Your task to perform on an android device: What's the weather like in Mumbai? Image 0: 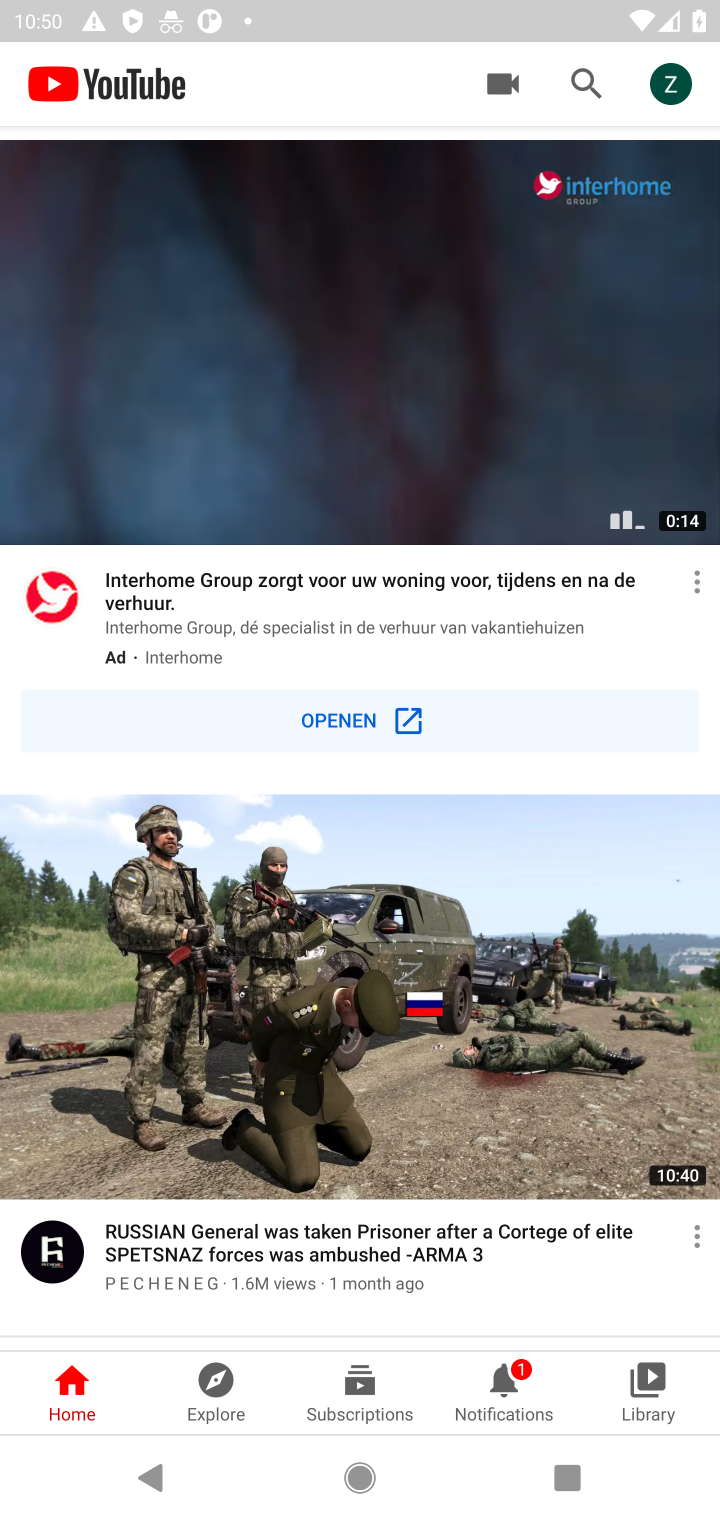
Step 0: press home button
Your task to perform on an android device: What's the weather like in Mumbai? Image 1: 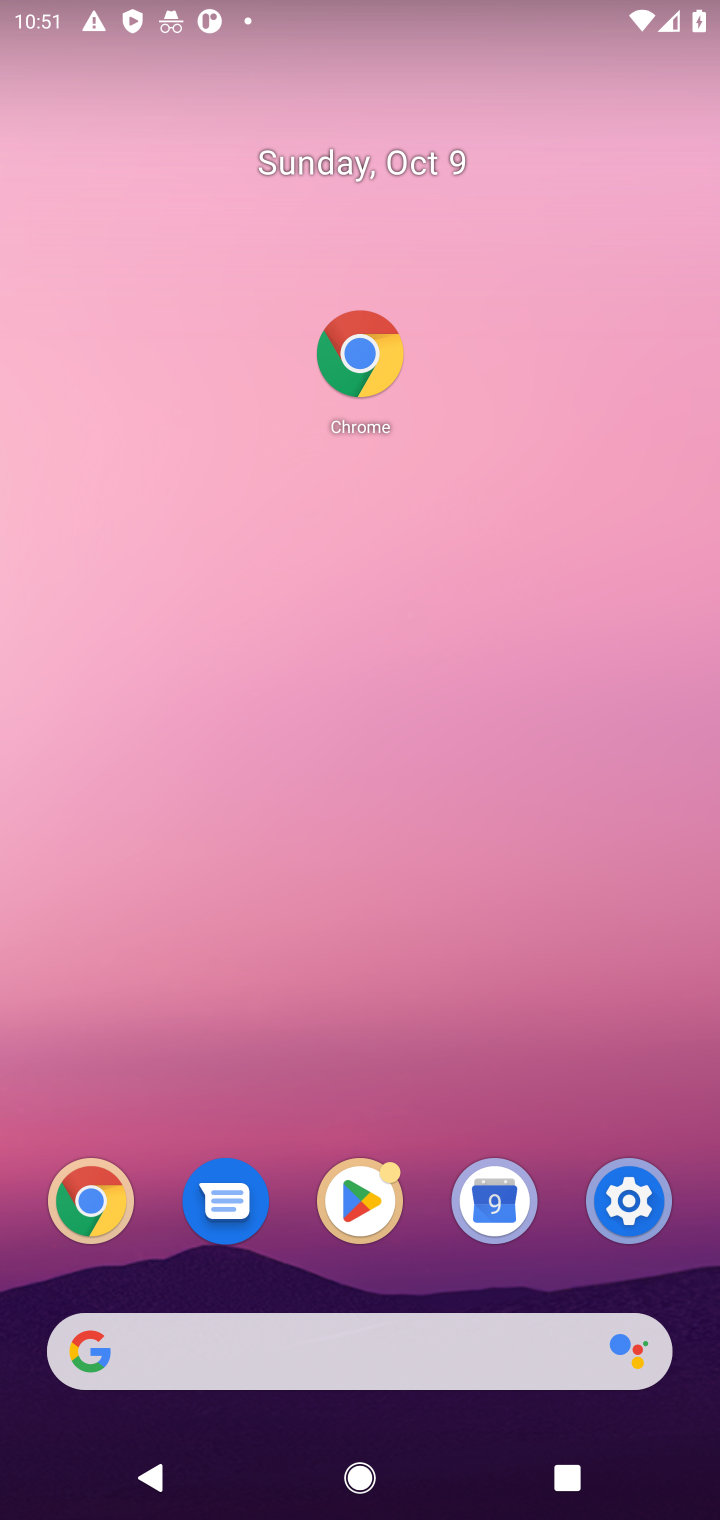
Step 1: click (90, 1205)
Your task to perform on an android device: What's the weather like in Mumbai? Image 2: 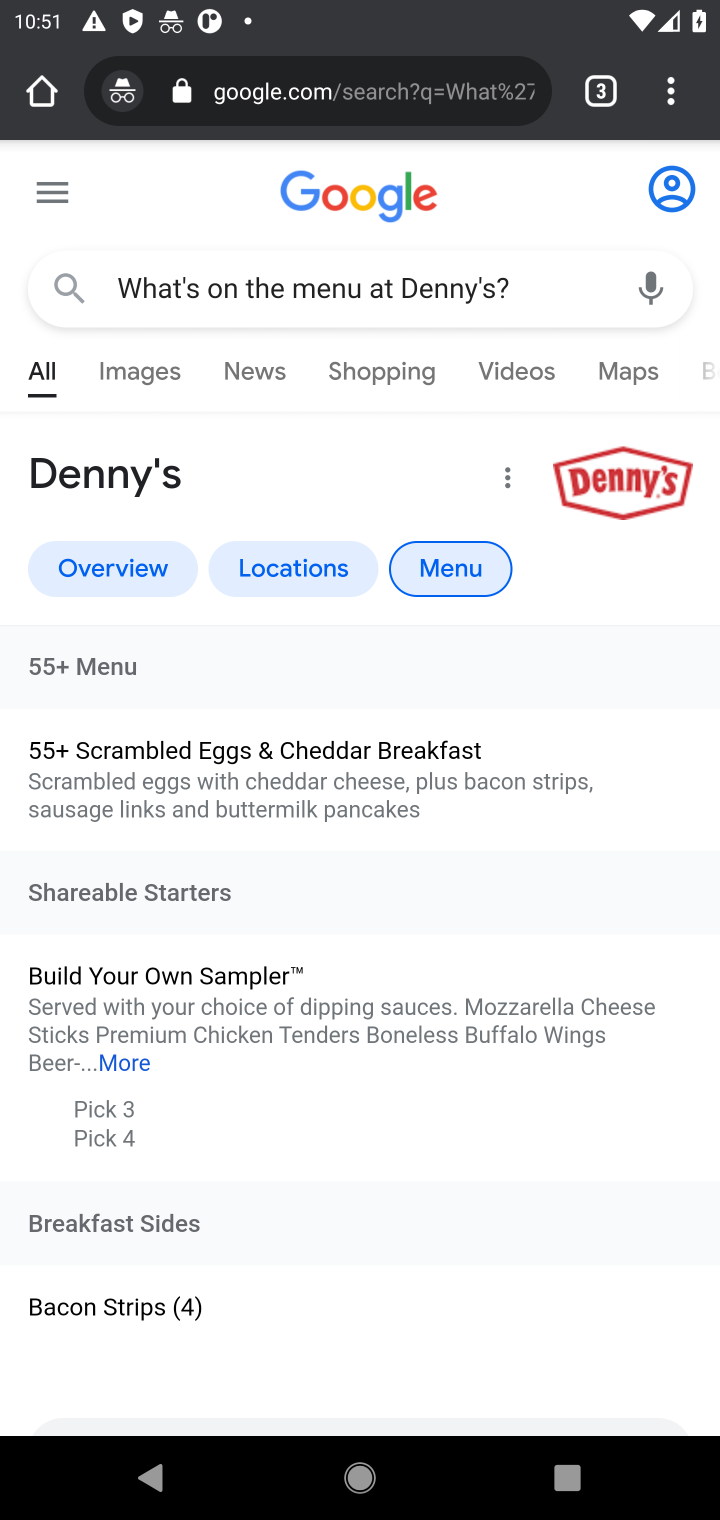
Step 2: click (382, 288)
Your task to perform on an android device: What's the weather like in Mumbai? Image 3: 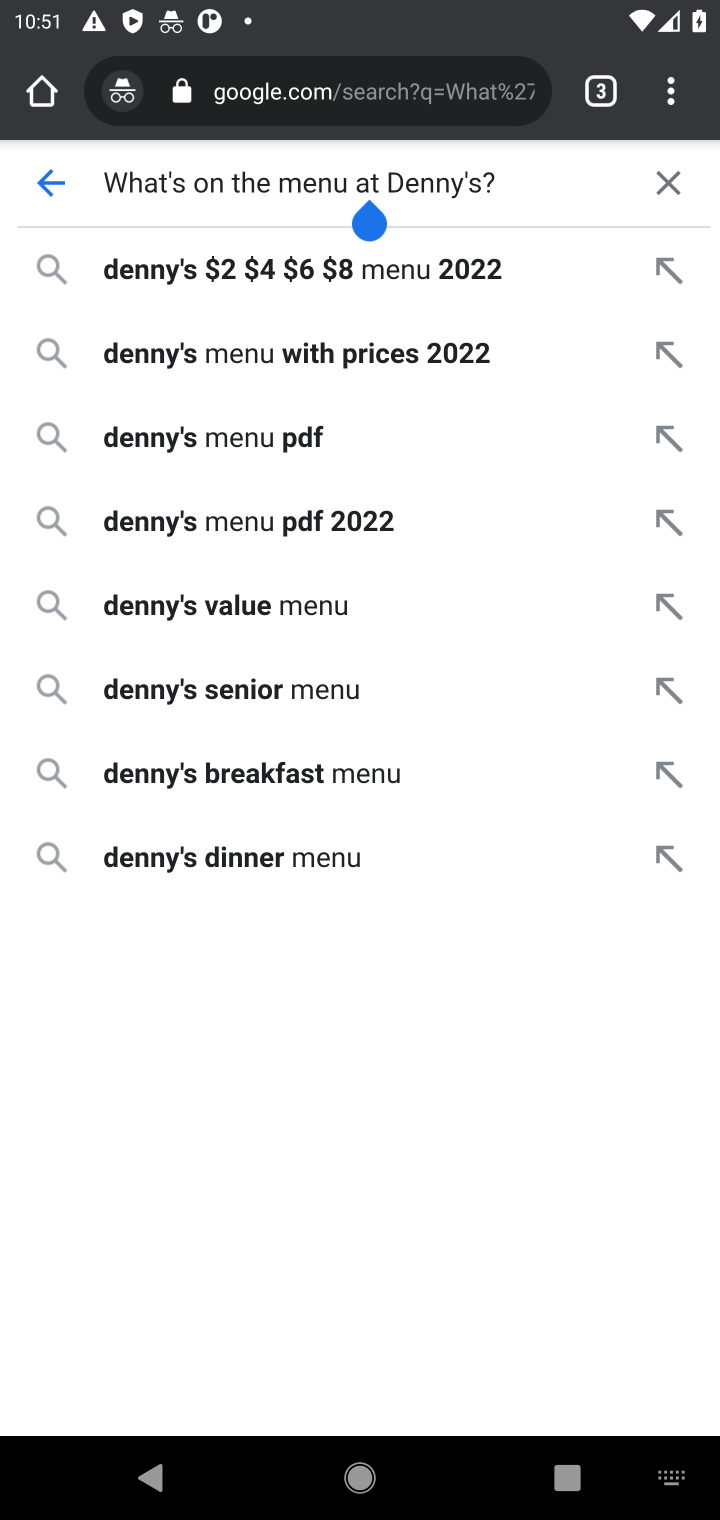
Step 3: click (341, 92)
Your task to perform on an android device: What's the weather like in Mumbai? Image 4: 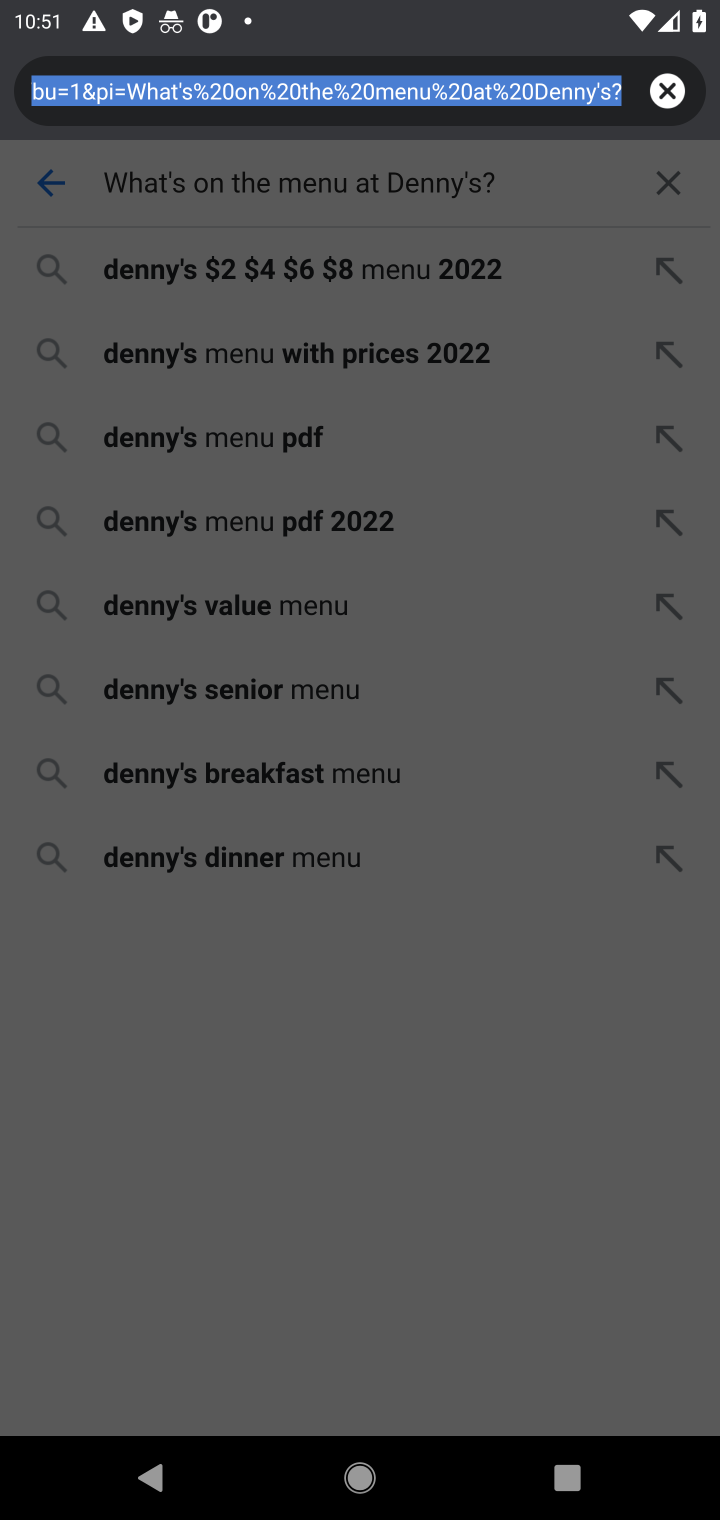
Step 4: type "What's the weather like in Mumbai?"
Your task to perform on an android device: What's the weather like in Mumbai? Image 5: 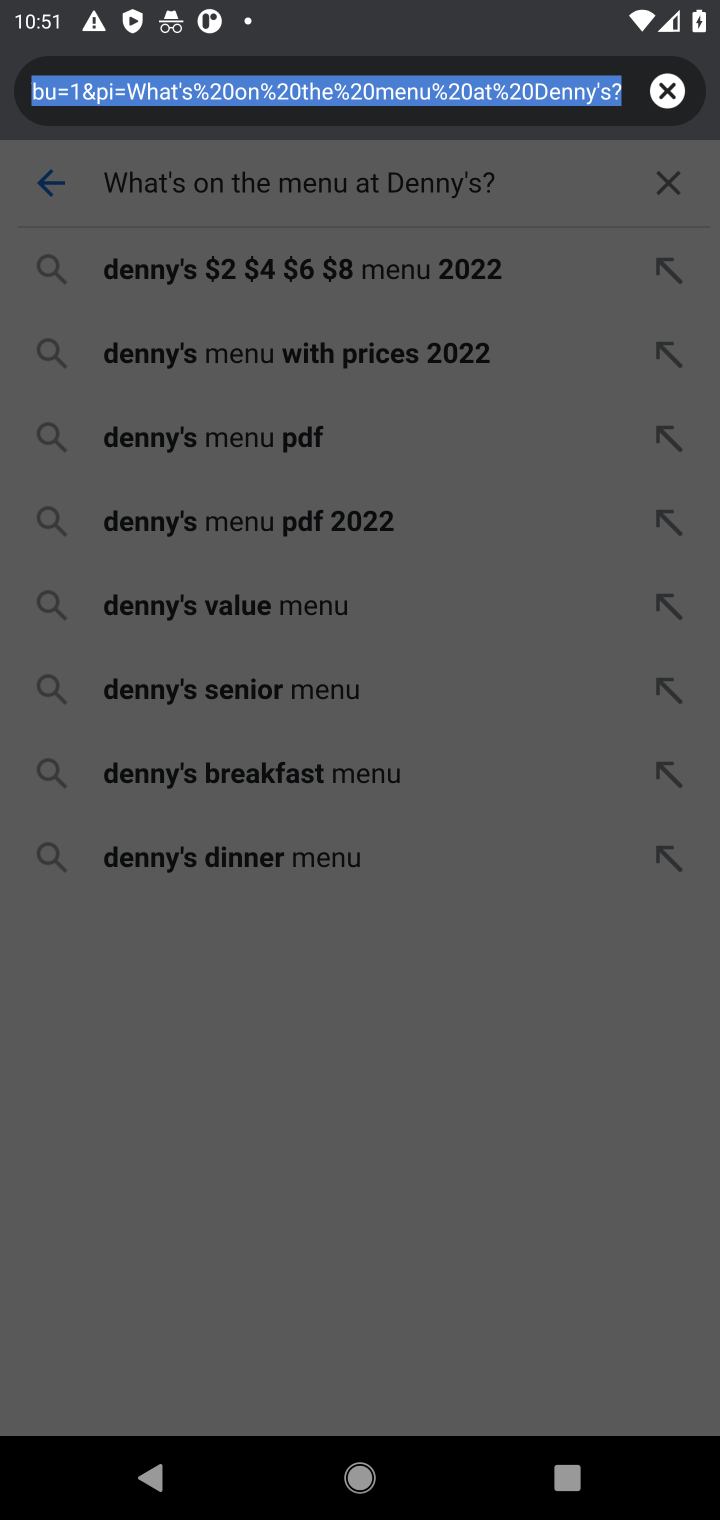
Step 5: click (508, 106)
Your task to perform on an android device: What's the weather like in Mumbai? Image 6: 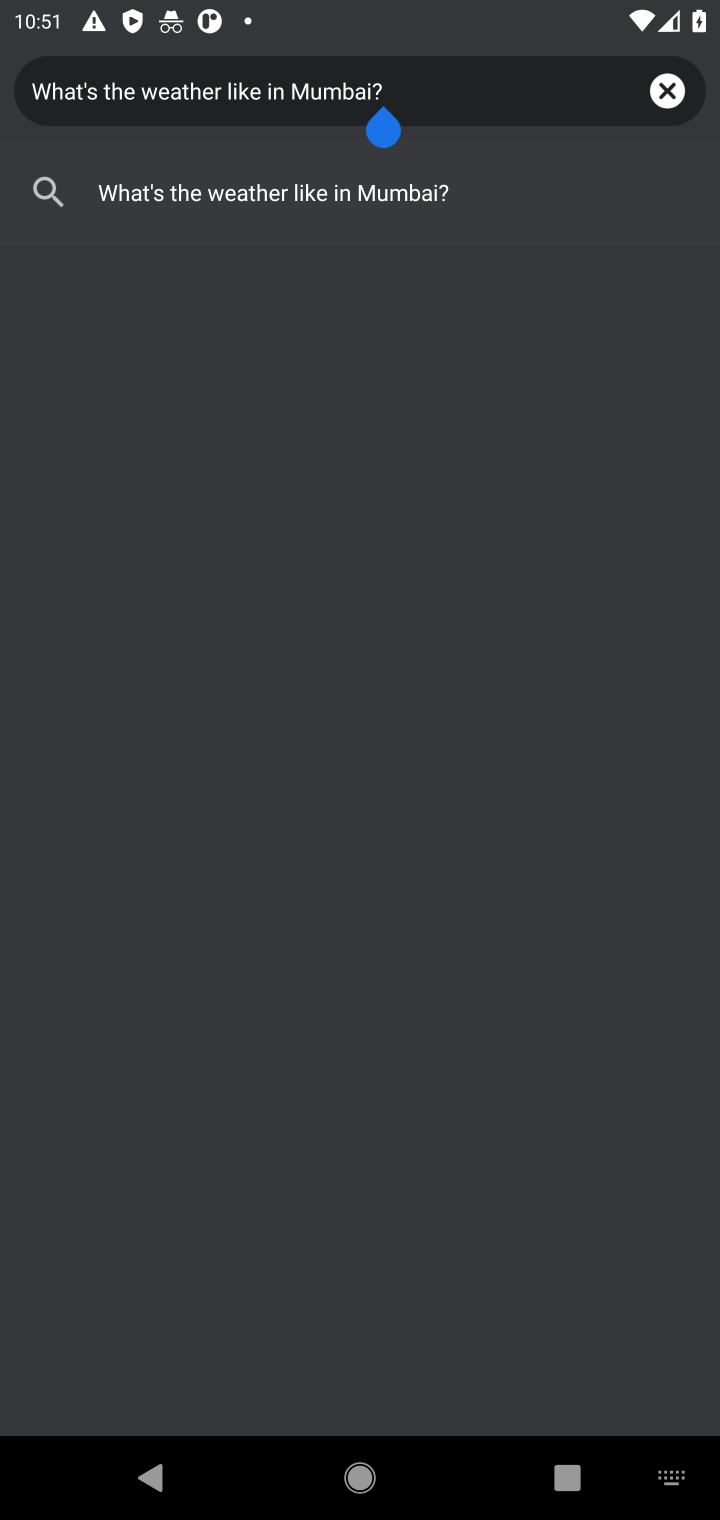
Step 6: click (340, 199)
Your task to perform on an android device: What's the weather like in Mumbai? Image 7: 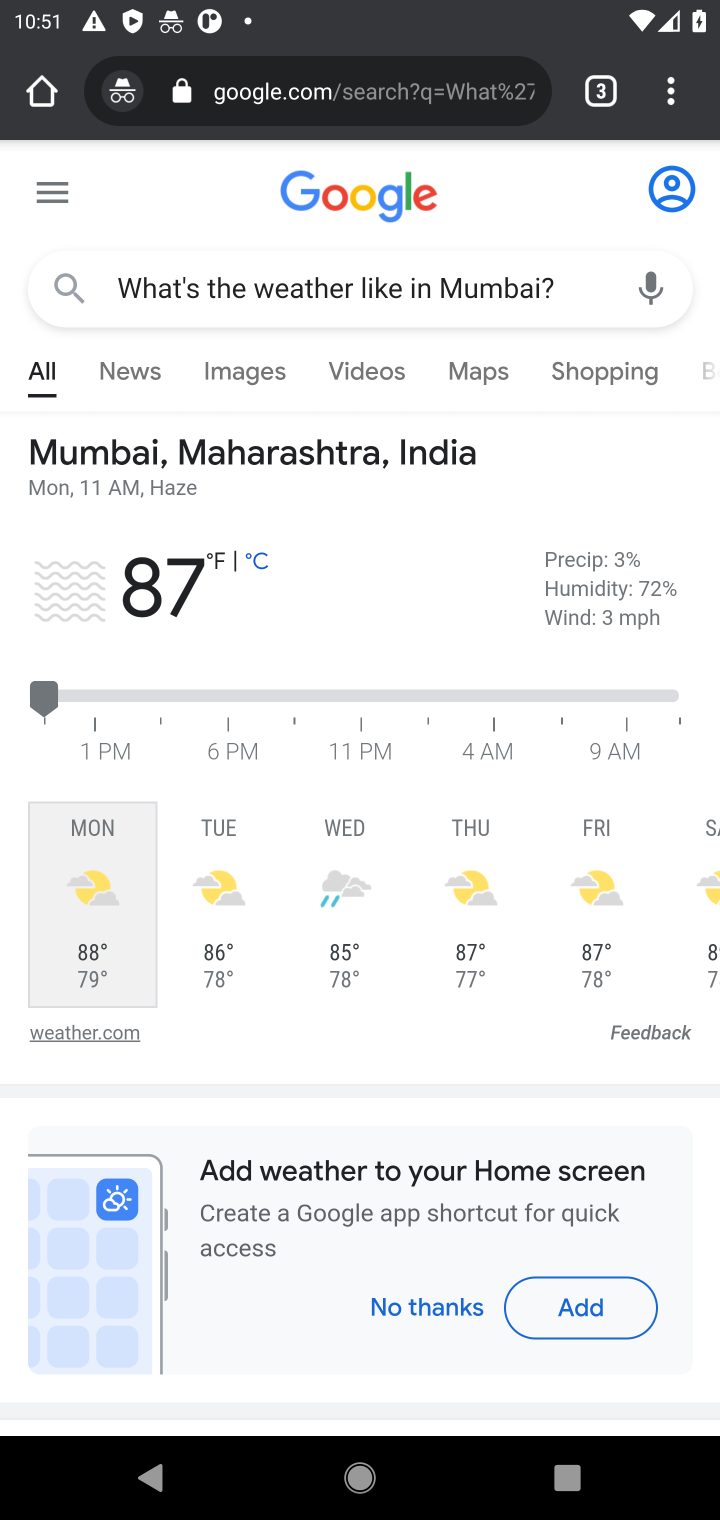
Step 7: task complete